Your task to perform on an android device: Go to Maps Image 0: 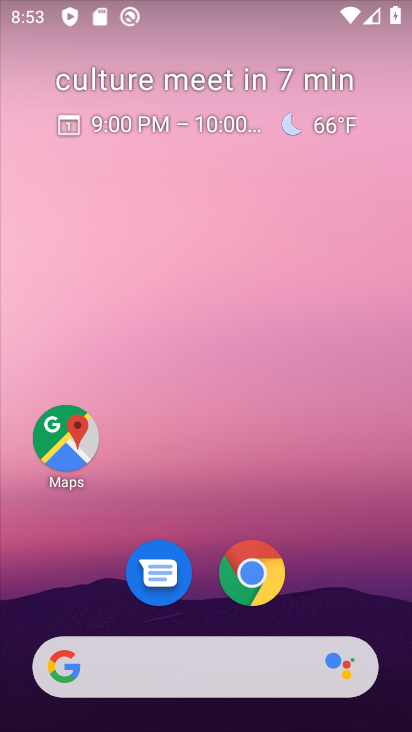
Step 0: click (54, 421)
Your task to perform on an android device: Go to Maps Image 1: 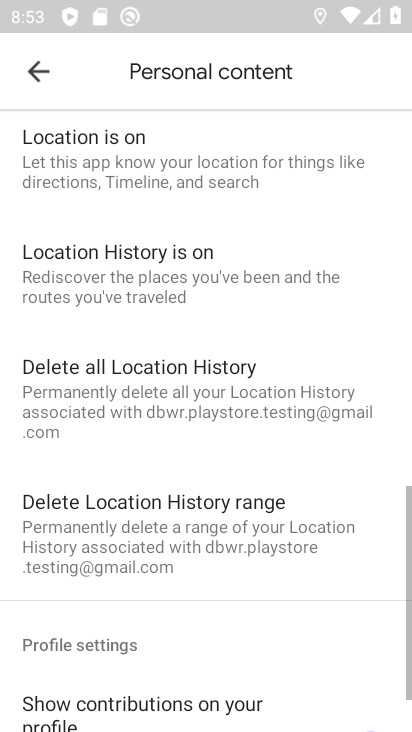
Step 1: click (40, 60)
Your task to perform on an android device: Go to Maps Image 2: 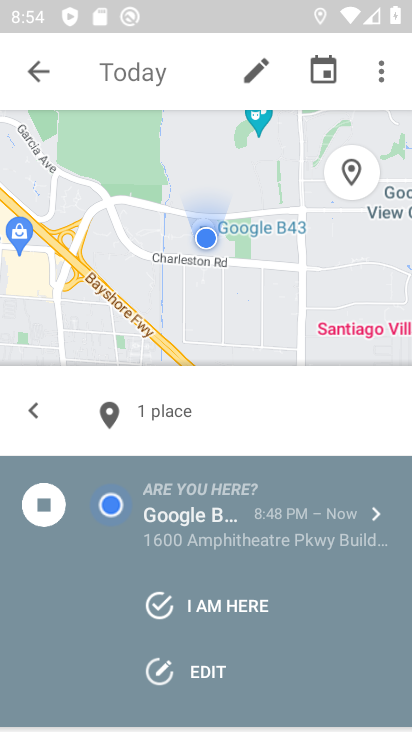
Step 2: task complete